Your task to perform on an android device: Show me popular games on the Play Store Image 0: 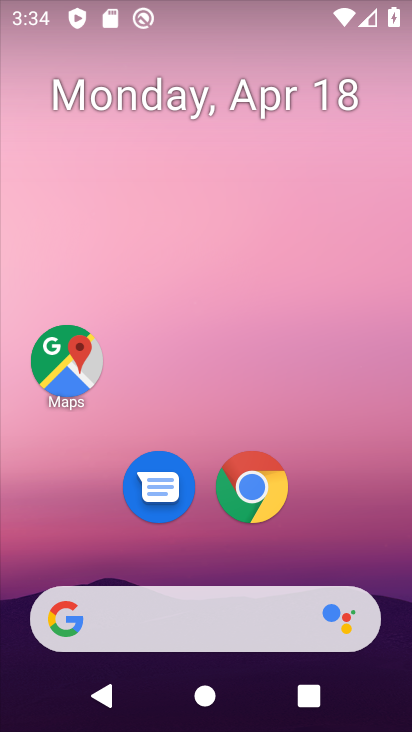
Step 0: drag from (220, 572) to (187, 38)
Your task to perform on an android device: Show me popular games on the Play Store Image 1: 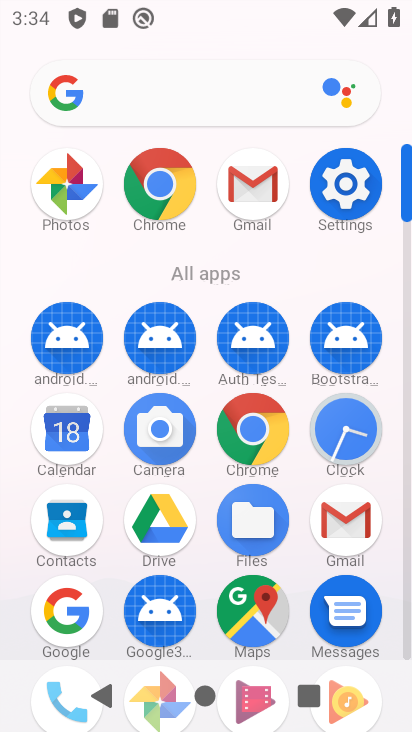
Step 1: drag from (201, 657) to (176, 42)
Your task to perform on an android device: Show me popular games on the Play Store Image 2: 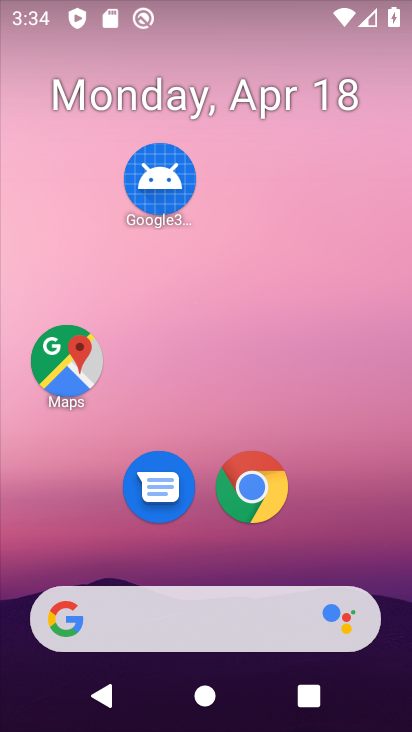
Step 2: drag from (228, 579) to (188, 4)
Your task to perform on an android device: Show me popular games on the Play Store Image 3: 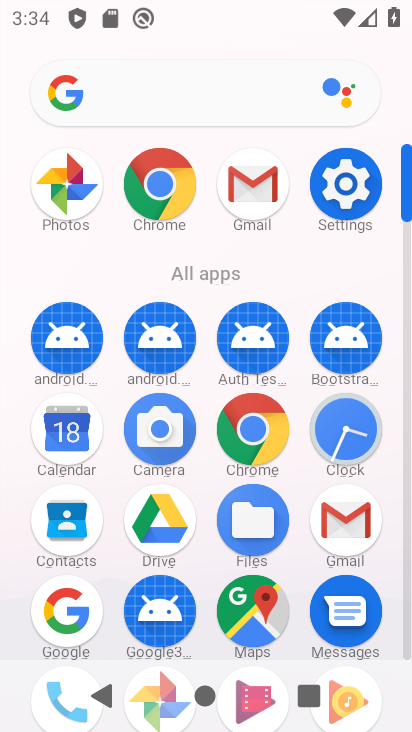
Step 3: drag from (199, 562) to (211, 19)
Your task to perform on an android device: Show me popular games on the Play Store Image 4: 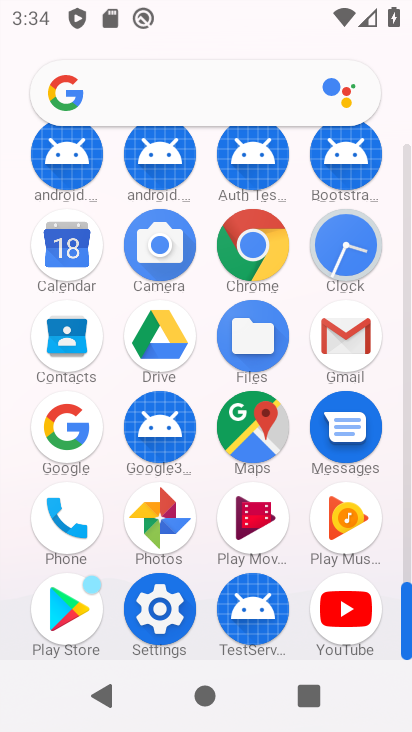
Step 4: click (77, 599)
Your task to perform on an android device: Show me popular games on the Play Store Image 5: 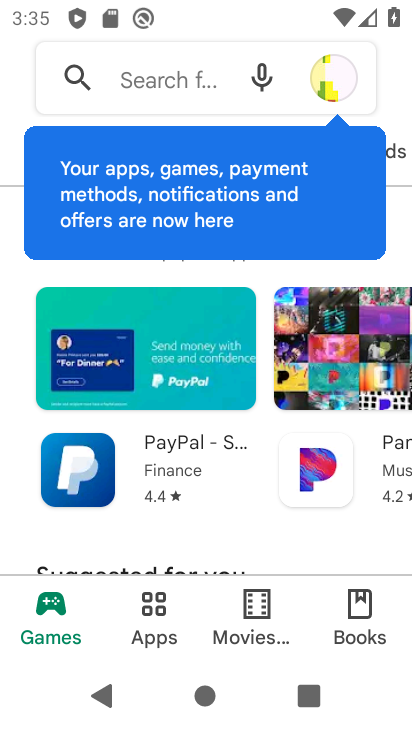
Step 5: task complete